Your task to perform on an android device: allow notifications from all sites in the chrome app Image 0: 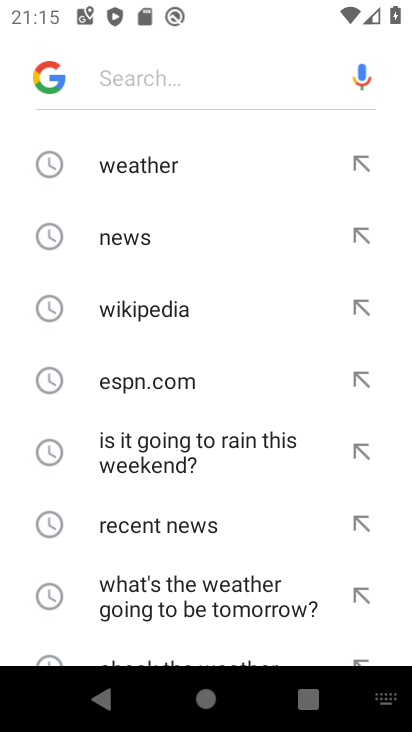
Step 0: press home button
Your task to perform on an android device: allow notifications from all sites in the chrome app Image 1: 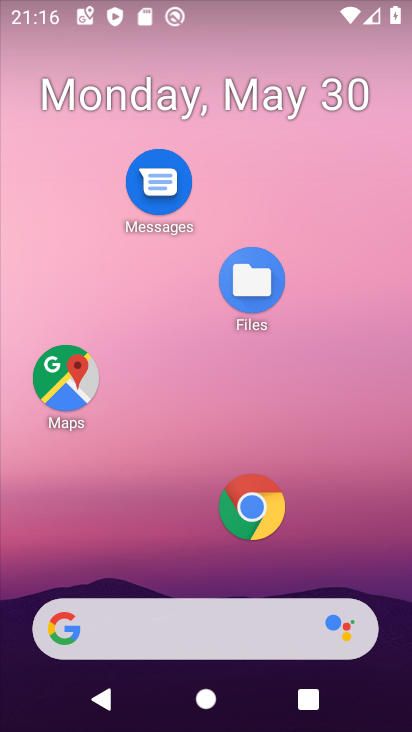
Step 1: click (252, 508)
Your task to perform on an android device: allow notifications from all sites in the chrome app Image 2: 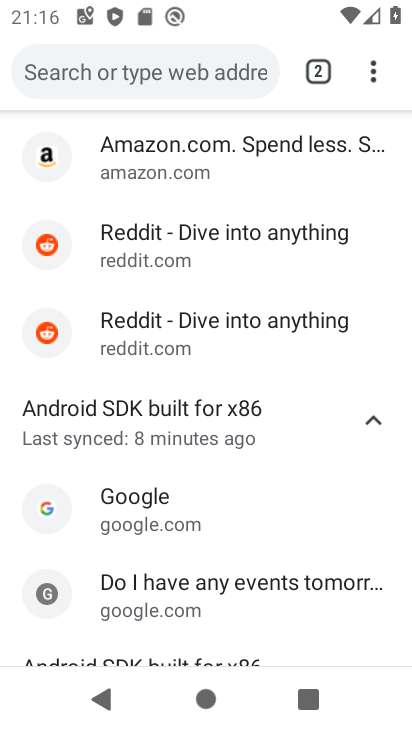
Step 2: click (375, 73)
Your task to perform on an android device: allow notifications from all sites in the chrome app Image 3: 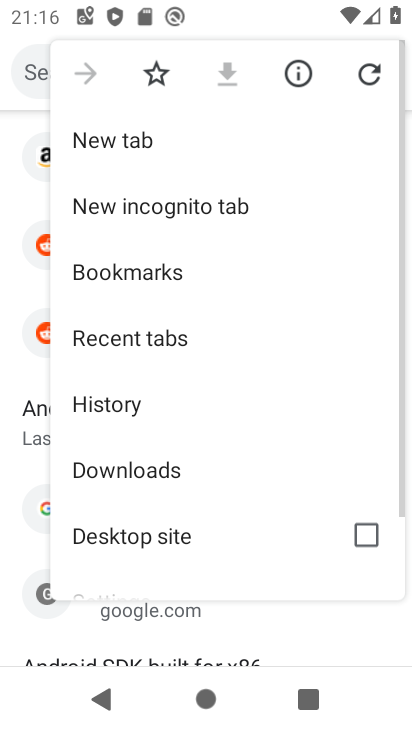
Step 3: drag from (153, 530) to (179, 11)
Your task to perform on an android device: allow notifications from all sites in the chrome app Image 4: 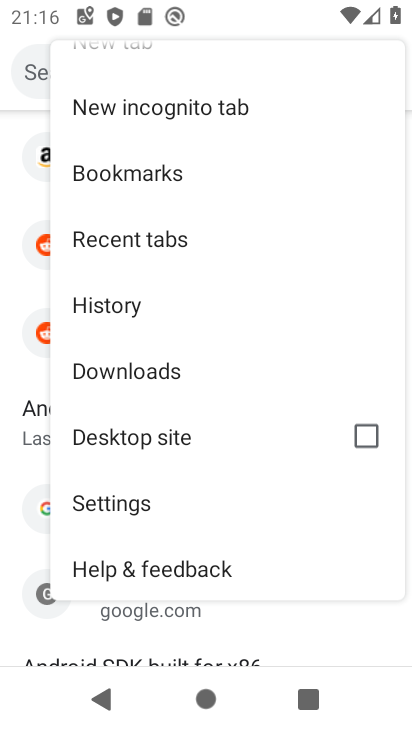
Step 4: click (148, 513)
Your task to perform on an android device: allow notifications from all sites in the chrome app Image 5: 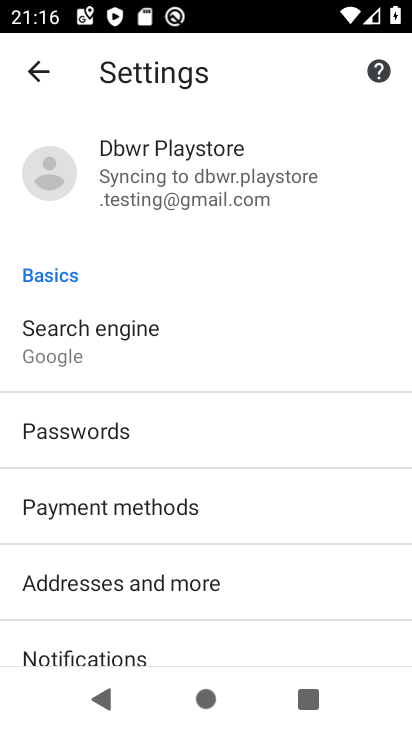
Step 5: drag from (185, 595) to (178, 261)
Your task to perform on an android device: allow notifications from all sites in the chrome app Image 6: 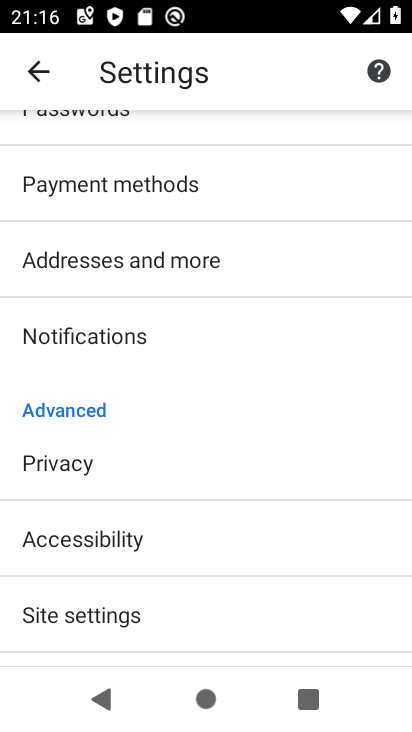
Step 6: click (101, 350)
Your task to perform on an android device: allow notifications from all sites in the chrome app Image 7: 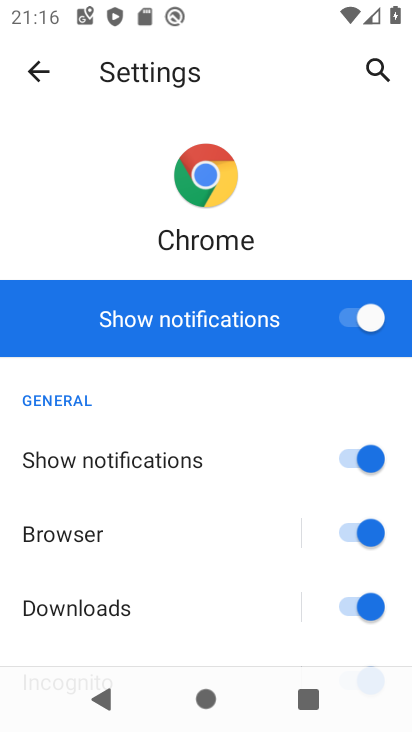
Step 7: task complete